Your task to perform on an android device: see sites visited before in the chrome app Image 0: 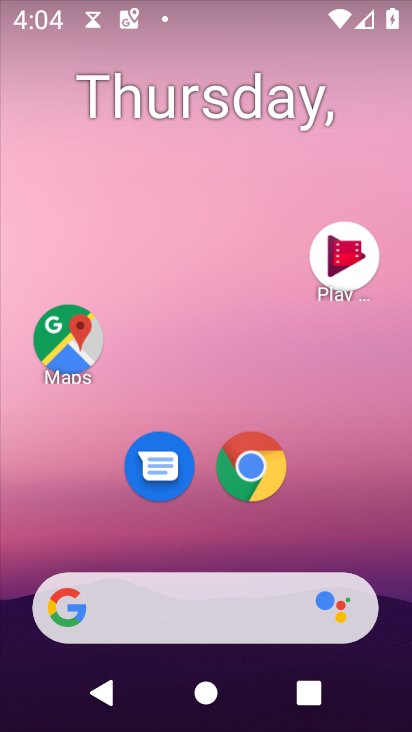
Step 0: drag from (254, 572) to (247, 16)
Your task to perform on an android device: see sites visited before in the chrome app Image 1: 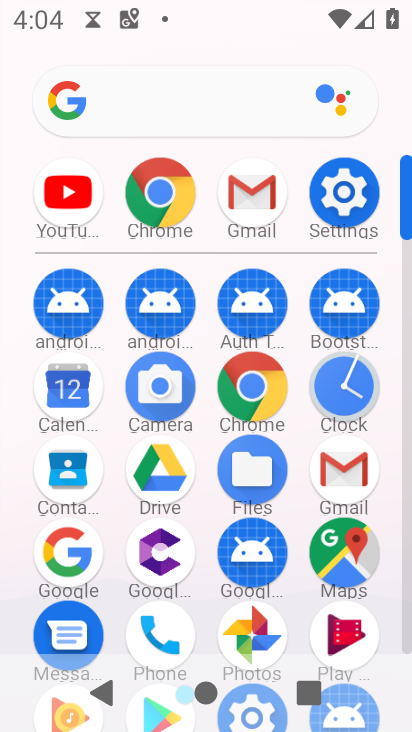
Step 1: click (261, 396)
Your task to perform on an android device: see sites visited before in the chrome app Image 2: 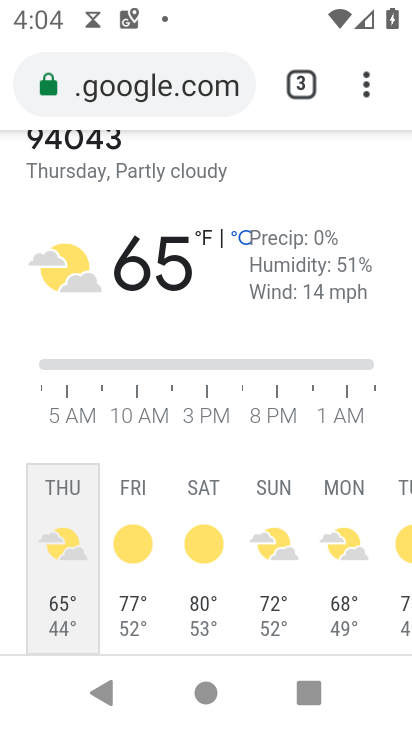
Step 2: task complete